Your task to perform on an android device: change the clock style Image 0: 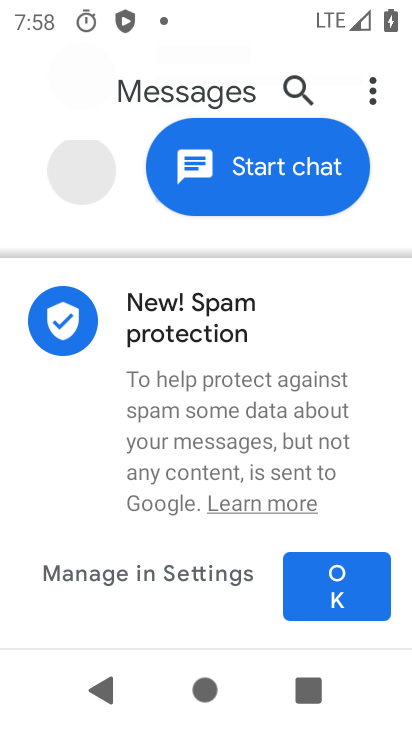
Step 0: press home button
Your task to perform on an android device: change the clock style Image 1: 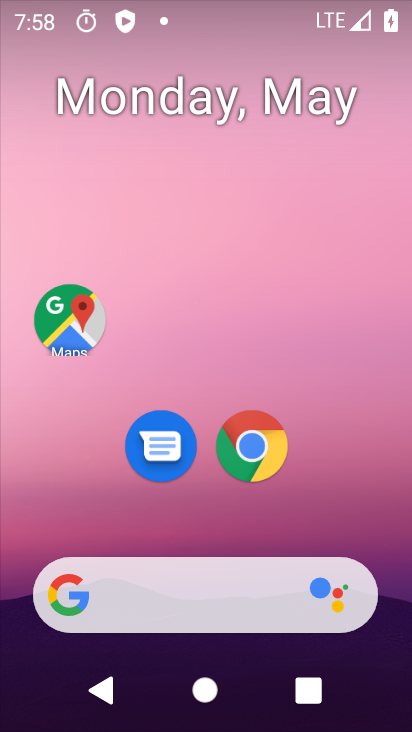
Step 1: drag from (335, 528) to (330, 0)
Your task to perform on an android device: change the clock style Image 2: 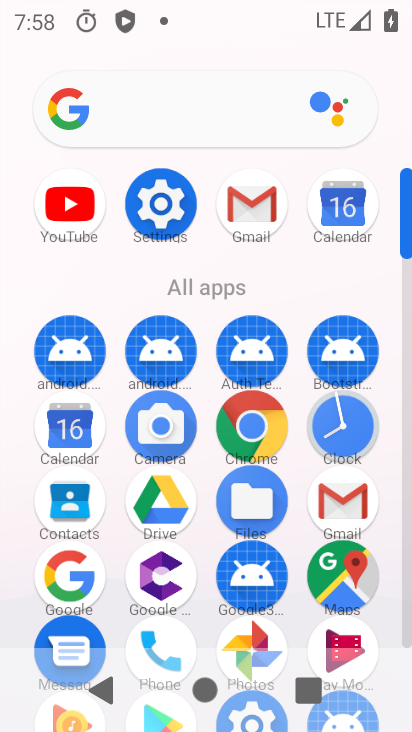
Step 2: click (339, 429)
Your task to perform on an android device: change the clock style Image 3: 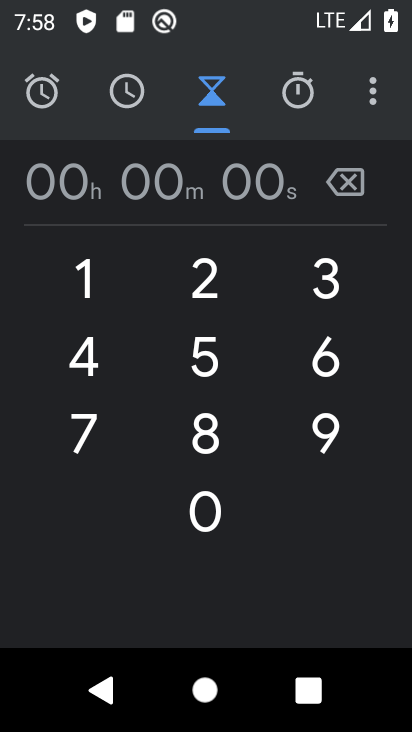
Step 3: click (383, 91)
Your task to perform on an android device: change the clock style Image 4: 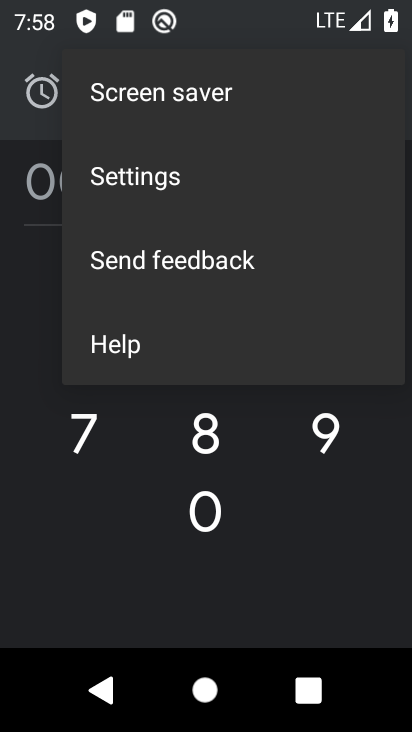
Step 4: click (127, 179)
Your task to perform on an android device: change the clock style Image 5: 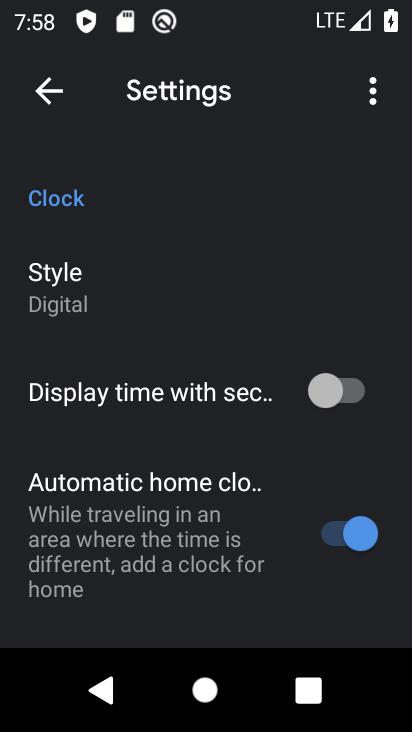
Step 5: click (73, 291)
Your task to perform on an android device: change the clock style Image 6: 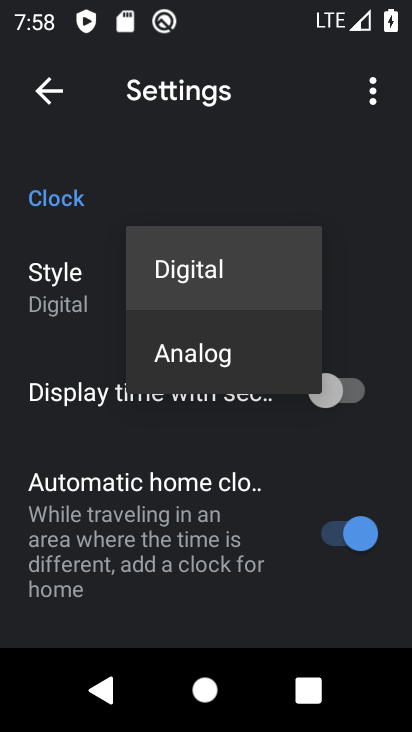
Step 6: click (205, 360)
Your task to perform on an android device: change the clock style Image 7: 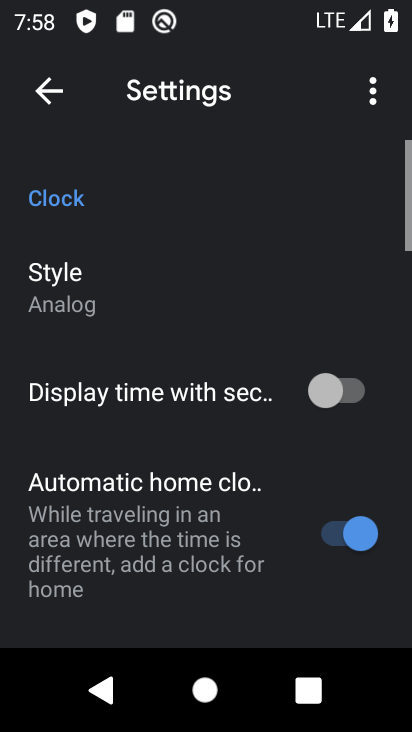
Step 7: task complete